Your task to perform on an android device: toggle show notifications on the lock screen Image 0: 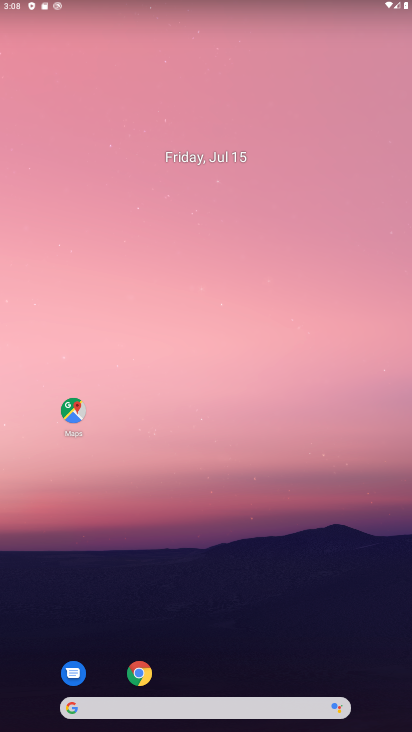
Step 0: drag from (177, 670) to (264, 224)
Your task to perform on an android device: toggle show notifications on the lock screen Image 1: 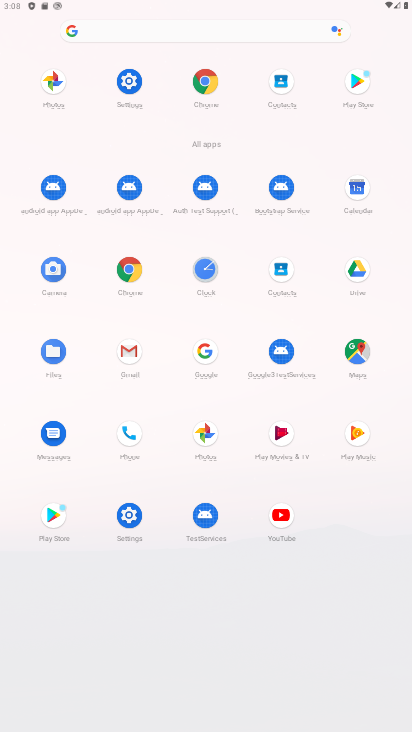
Step 1: click (129, 526)
Your task to perform on an android device: toggle show notifications on the lock screen Image 2: 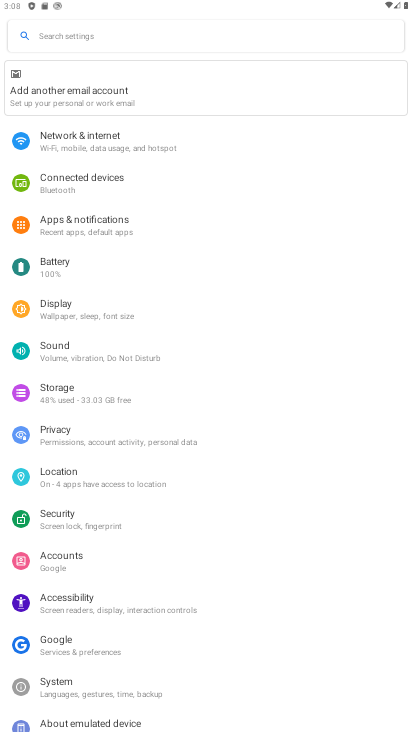
Step 2: click (140, 231)
Your task to perform on an android device: toggle show notifications on the lock screen Image 3: 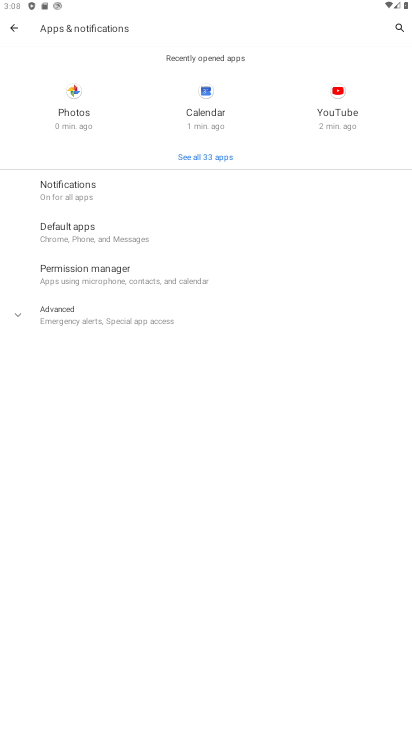
Step 3: click (122, 195)
Your task to perform on an android device: toggle show notifications on the lock screen Image 4: 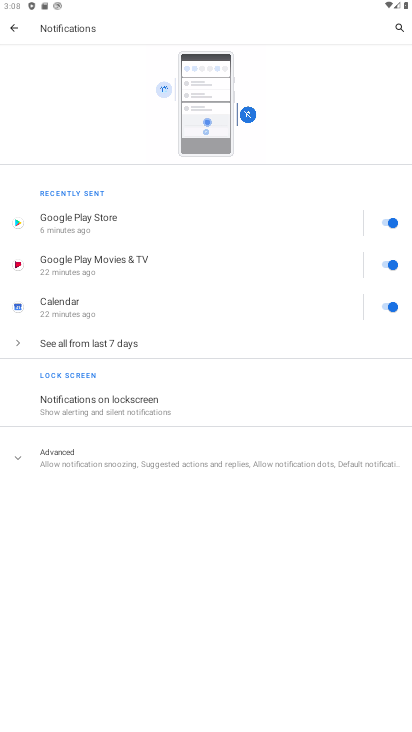
Step 4: click (289, 410)
Your task to perform on an android device: toggle show notifications on the lock screen Image 5: 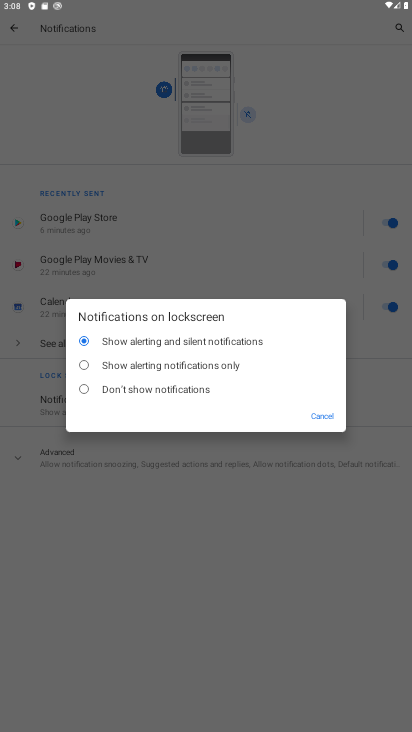
Step 5: click (199, 399)
Your task to perform on an android device: toggle show notifications on the lock screen Image 6: 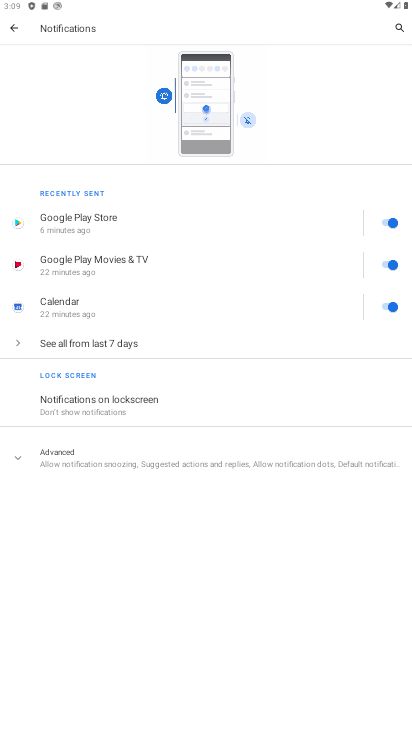
Step 6: task complete